Your task to perform on an android device: Open the calendar and show me this week's events? Image 0: 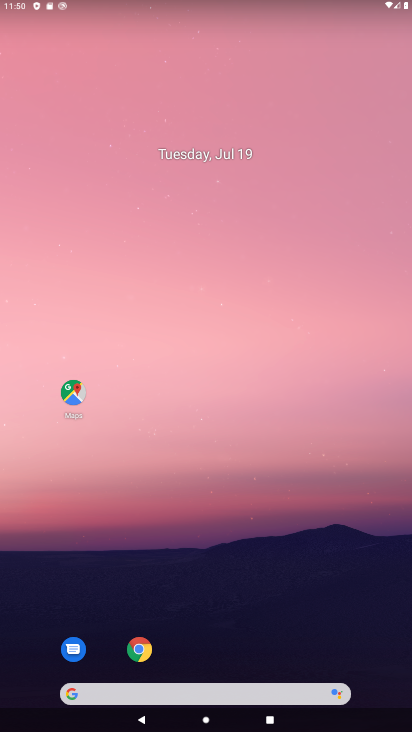
Step 0: click (179, 147)
Your task to perform on an android device: Open the calendar and show me this week's events? Image 1: 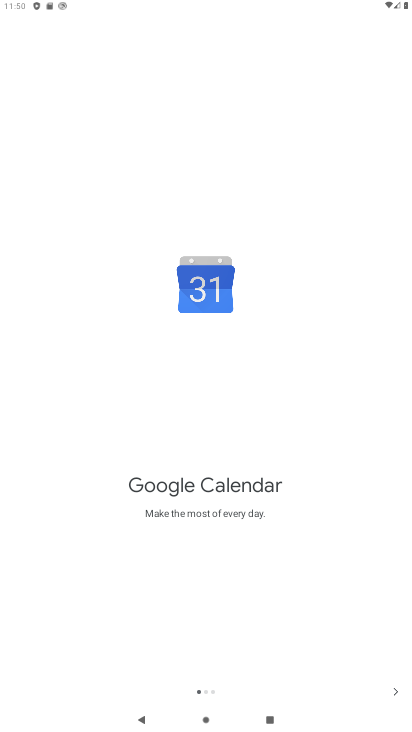
Step 1: click (393, 699)
Your task to perform on an android device: Open the calendar and show me this week's events? Image 2: 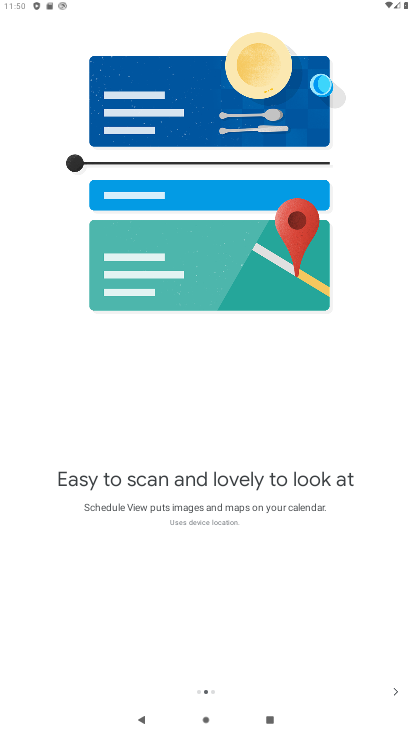
Step 2: click (393, 699)
Your task to perform on an android device: Open the calendar and show me this week's events? Image 3: 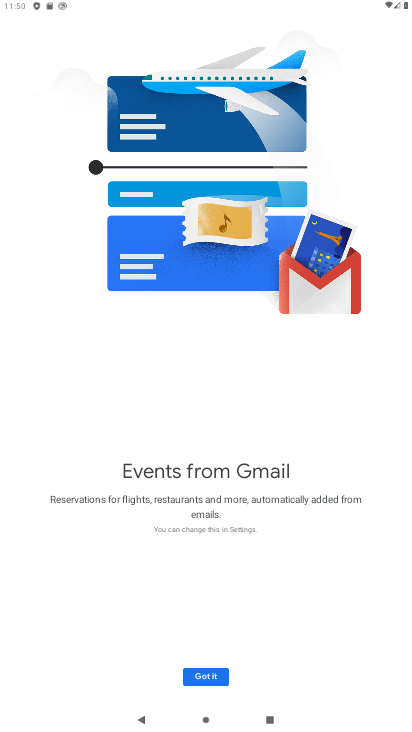
Step 3: click (198, 680)
Your task to perform on an android device: Open the calendar and show me this week's events? Image 4: 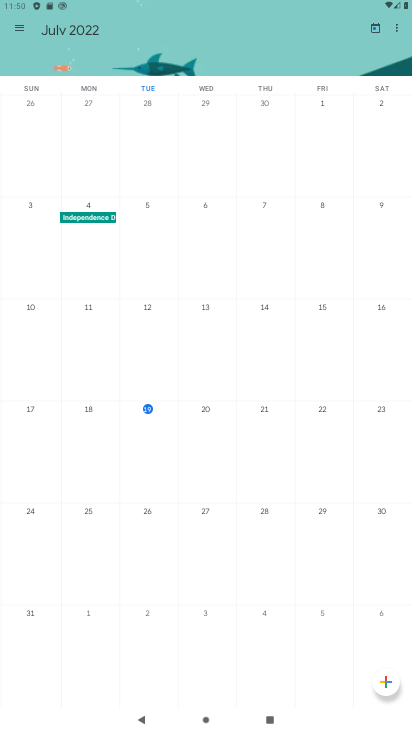
Step 4: click (15, 19)
Your task to perform on an android device: Open the calendar and show me this week's events? Image 5: 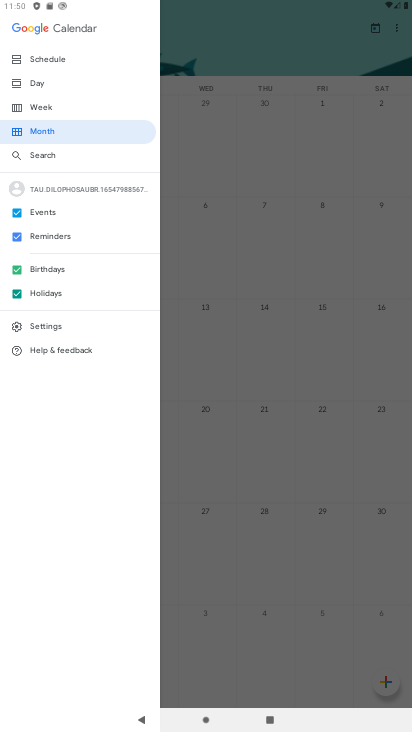
Step 5: click (18, 233)
Your task to perform on an android device: Open the calendar and show me this week's events? Image 6: 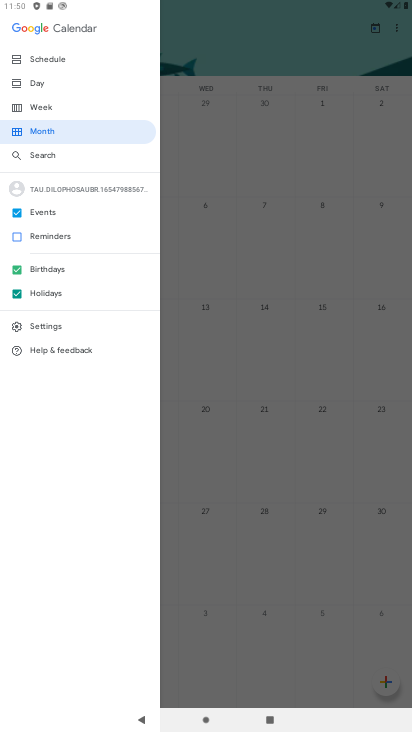
Step 6: click (16, 271)
Your task to perform on an android device: Open the calendar and show me this week's events? Image 7: 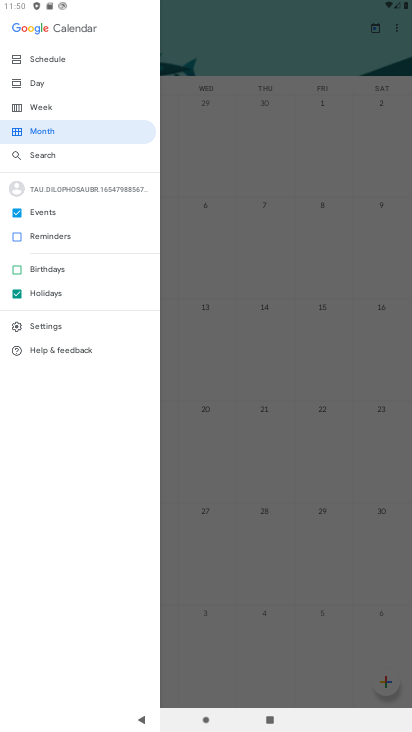
Step 7: click (13, 290)
Your task to perform on an android device: Open the calendar and show me this week's events? Image 8: 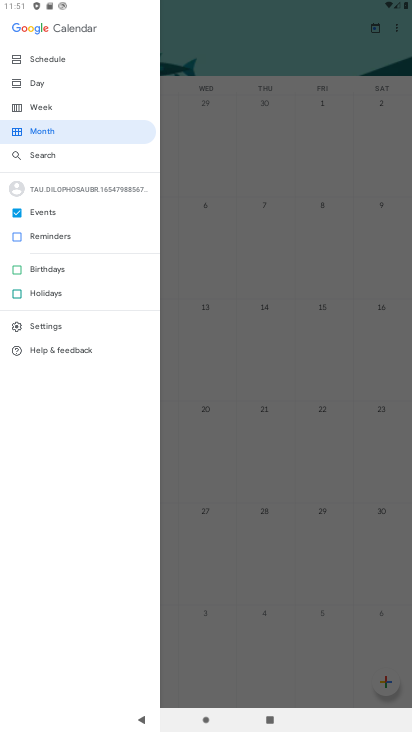
Step 8: click (301, 317)
Your task to perform on an android device: Open the calendar and show me this week's events? Image 9: 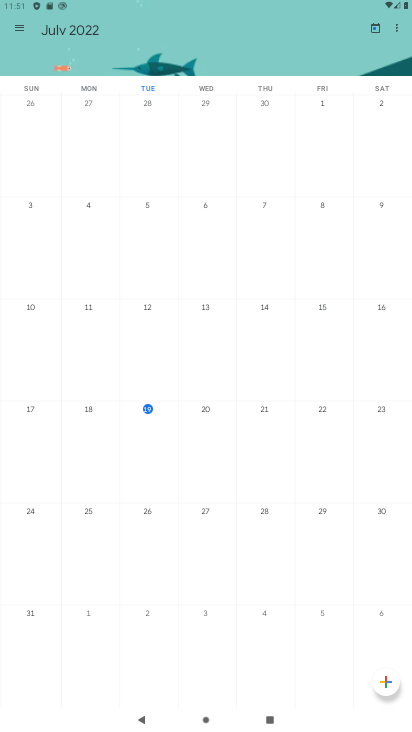
Step 9: task complete